Your task to perform on an android device: Go to Google maps Image 0: 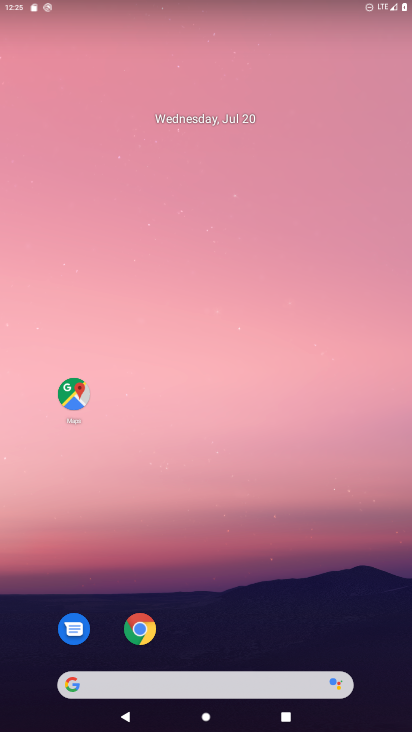
Step 0: click (86, 399)
Your task to perform on an android device: Go to Google maps Image 1: 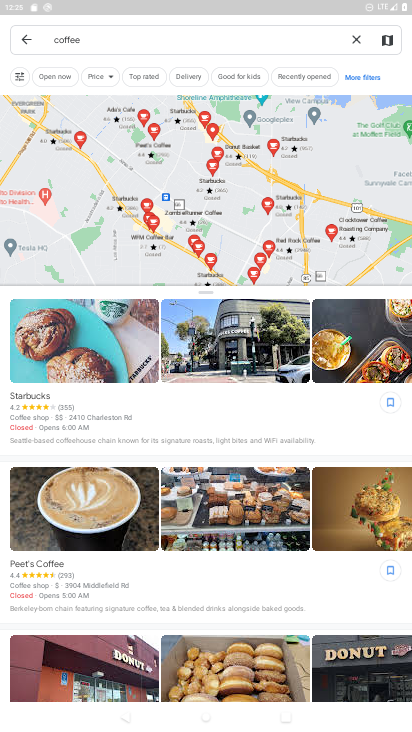
Step 1: task complete